Your task to perform on an android device: turn on airplane mode Image 0: 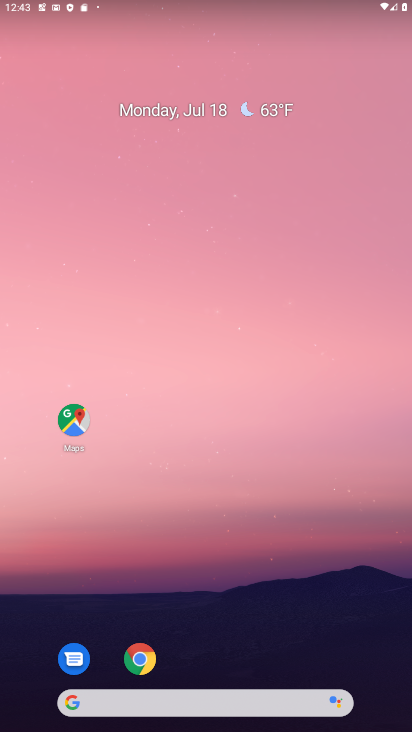
Step 0: drag from (208, 681) to (229, 229)
Your task to perform on an android device: turn on airplane mode Image 1: 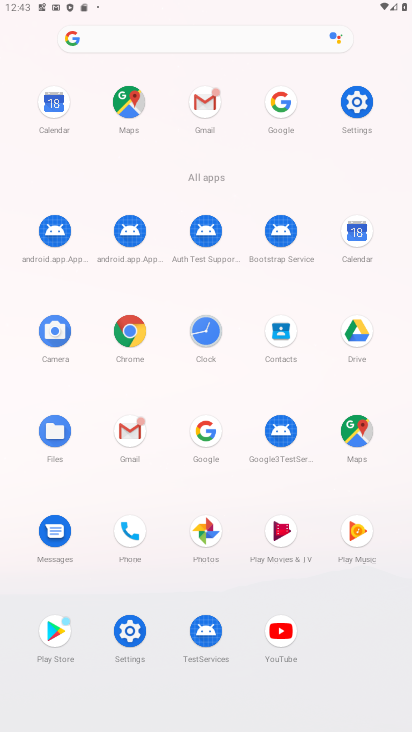
Step 1: click (358, 99)
Your task to perform on an android device: turn on airplane mode Image 2: 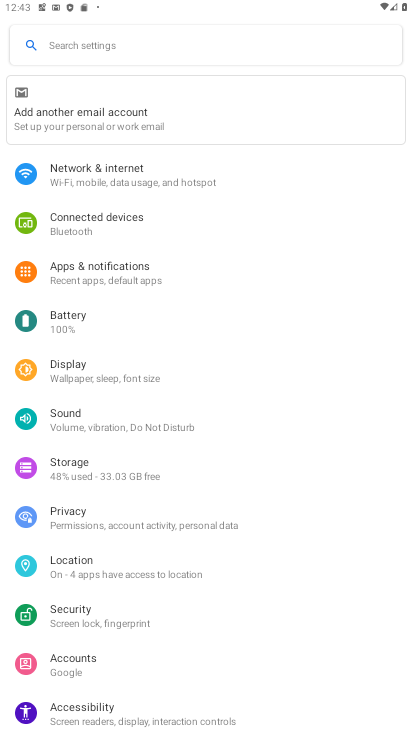
Step 2: click (130, 170)
Your task to perform on an android device: turn on airplane mode Image 3: 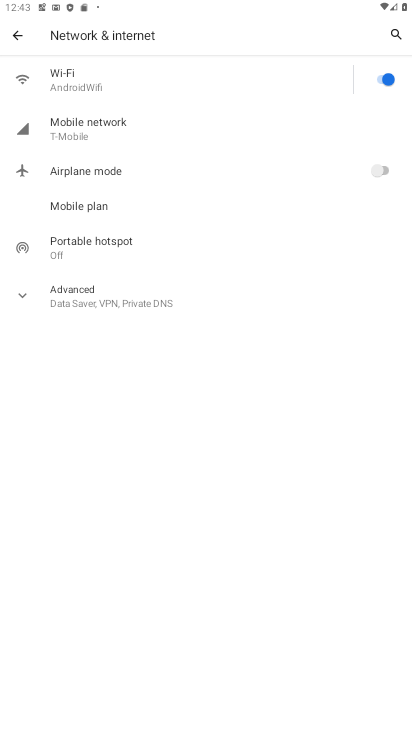
Step 3: click (383, 163)
Your task to perform on an android device: turn on airplane mode Image 4: 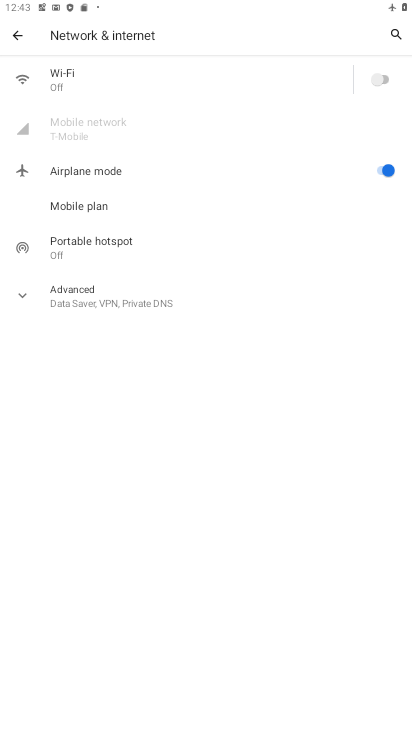
Step 4: task complete